Your task to perform on an android device: set the timer Image 0: 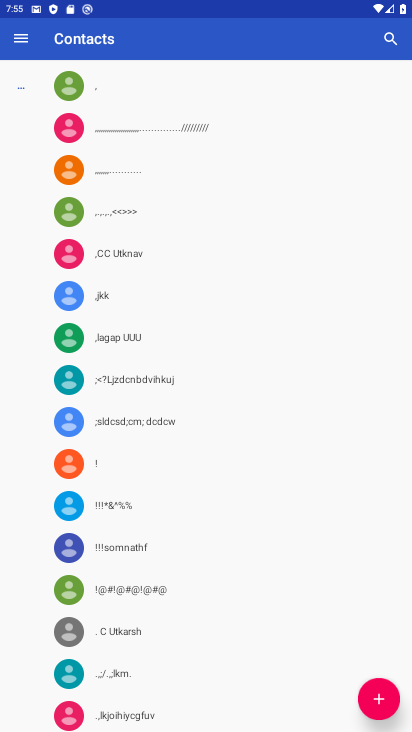
Step 0: press home button
Your task to perform on an android device: set the timer Image 1: 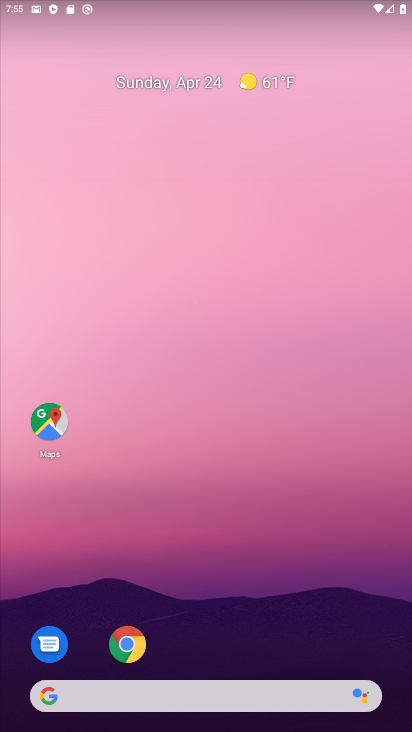
Step 1: drag from (240, 689) to (230, 75)
Your task to perform on an android device: set the timer Image 2: 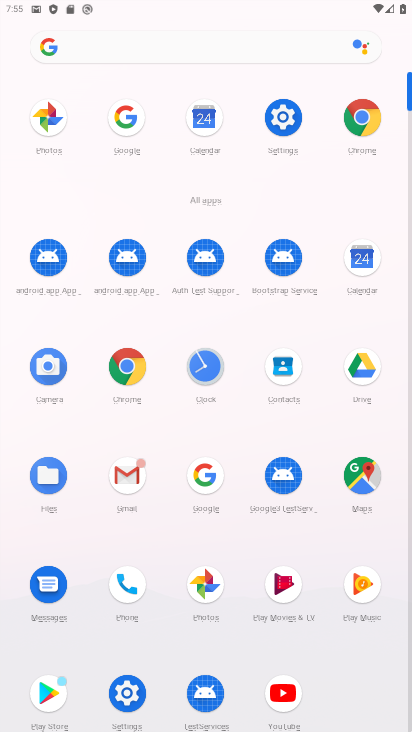
Step 2: drag from (230, 75) to (257, 96)
Your task to perform on an android device: set the timer Image 3: 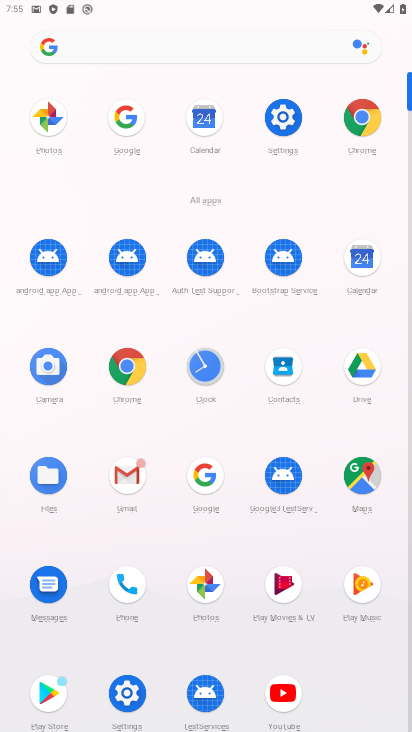
Step 3: click (201, 365)
Your task to perform on an android device: set the timer Image 4: 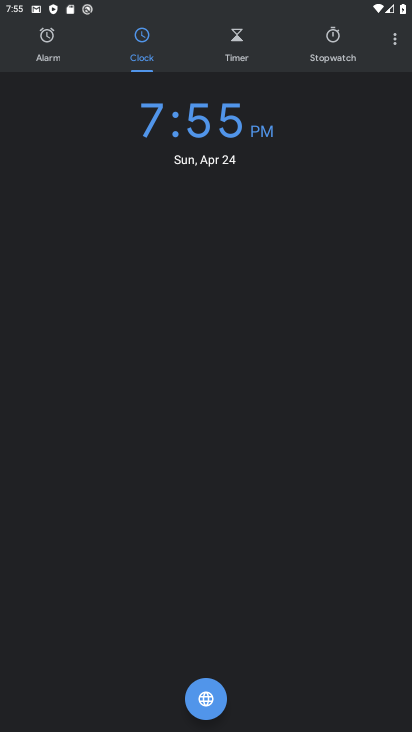
Step 4: click (243, 31)
Your task to perform on an android device: set the timer Image 5: 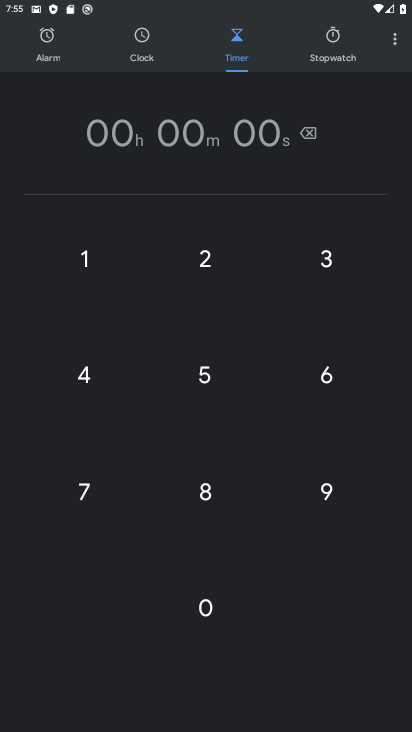
Step 5: click (61, 387)
Your task to perform on an android device: set the timer Image 6: 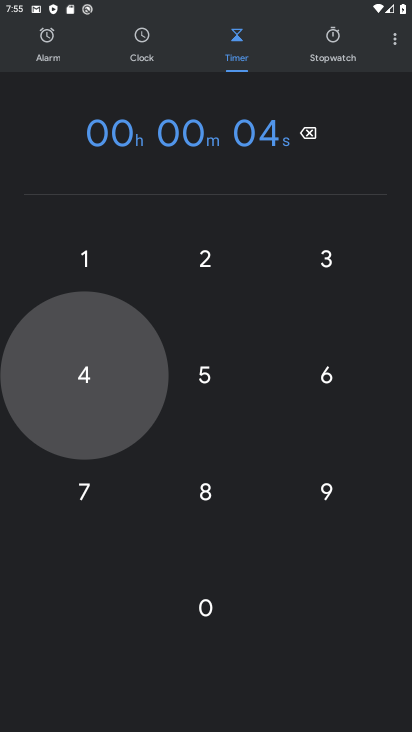
Step 6: click (196, 389)
Your task to perform on an android device: set the timer Image 7: 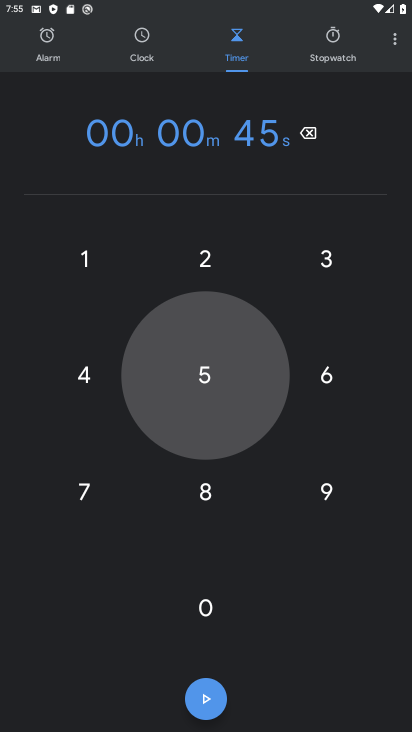
Step 7: click (374, 370)
Your task to perform on an android device: set the timer Image 8: 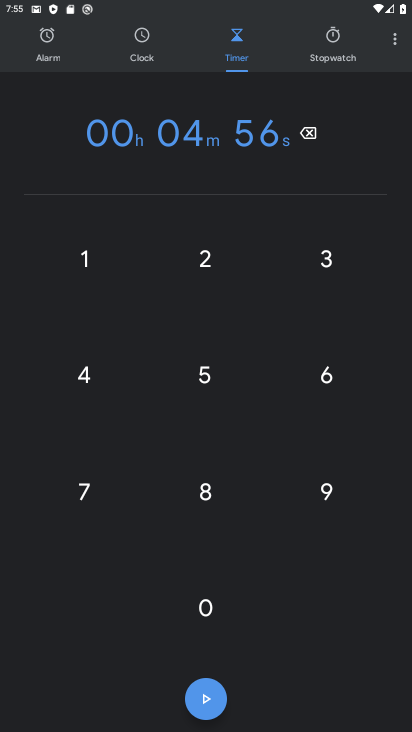
Step 8: click (192, 701)
Your task to perform on an android device: set the timer Image 9: 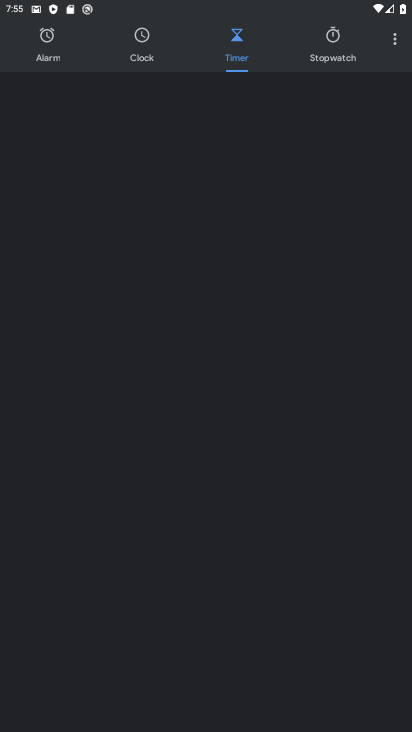
Step 9: click (192, 701)
Your task to perform on an android device: set the timer Image 10: 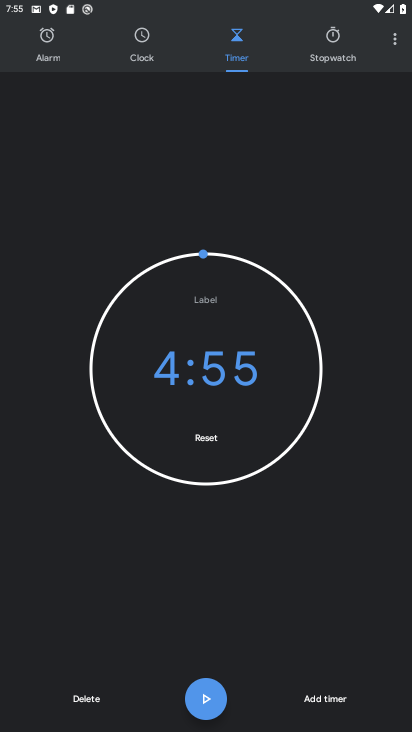
Step 10: task complete